Your task to perform on an android device: turn on airplane mode Image 0: 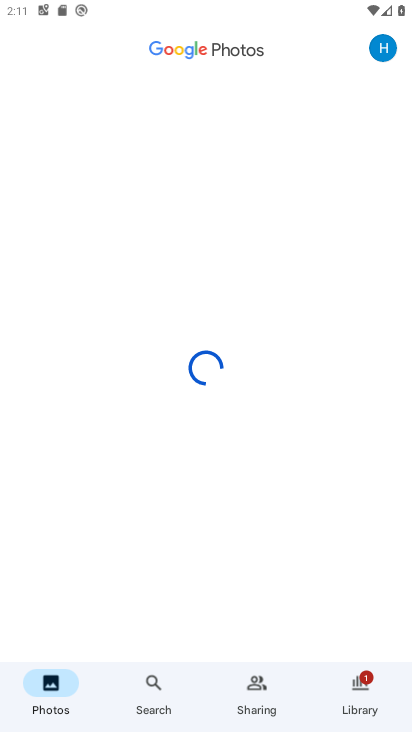
Step 0: press home button
Your task to perform on an android device: turn on airplane mode Image 1: 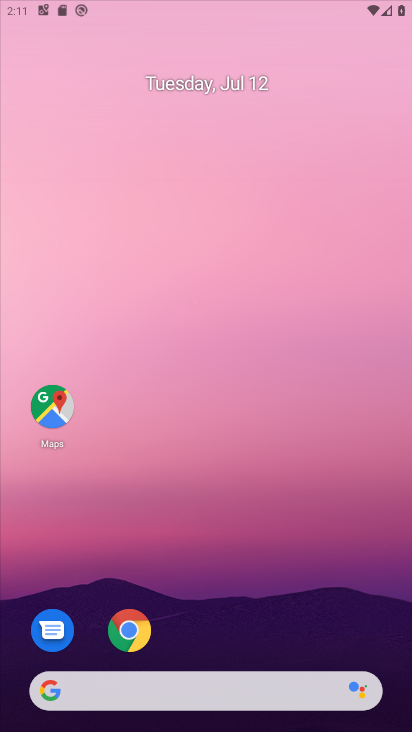
Step 1: drag from (189, 576) to (238, 193)
Your task to perform on an android device: turn on airplane mode Image 2: 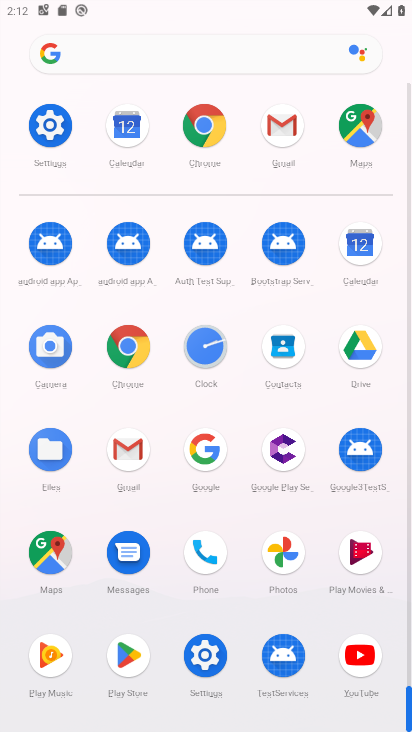
Step 2: click (54, 142)
Your task to perform on an android device: turn on airplane mode Image 3: 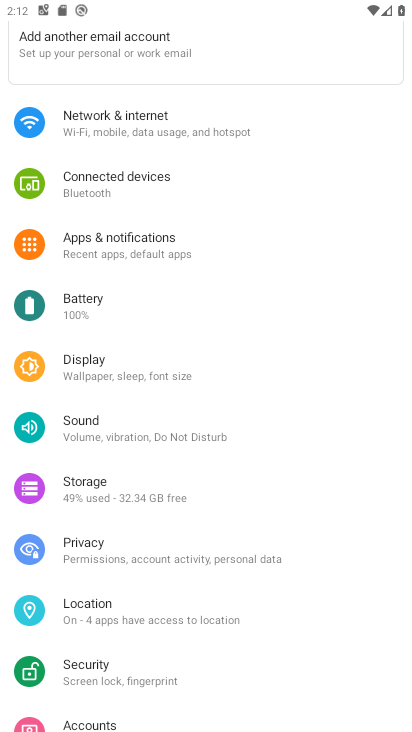
Step 3: click (218, 126)
Your task to perform on an android device: turn on airplane mode Image 4: 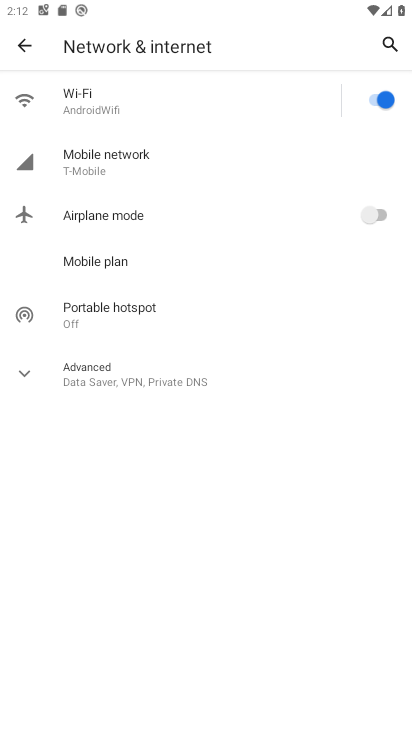
Step 4: click (223, 206)
Your task to perform on an android device: turn on airplane mode Image 5: 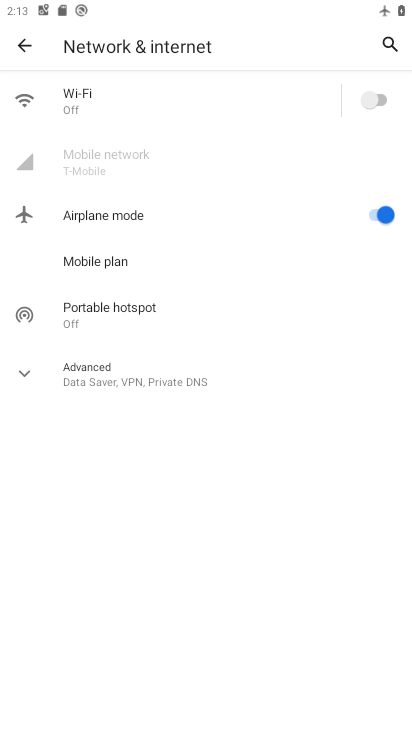
Step 5: task complete